Your task to perform on an android device: check storage Image 0: 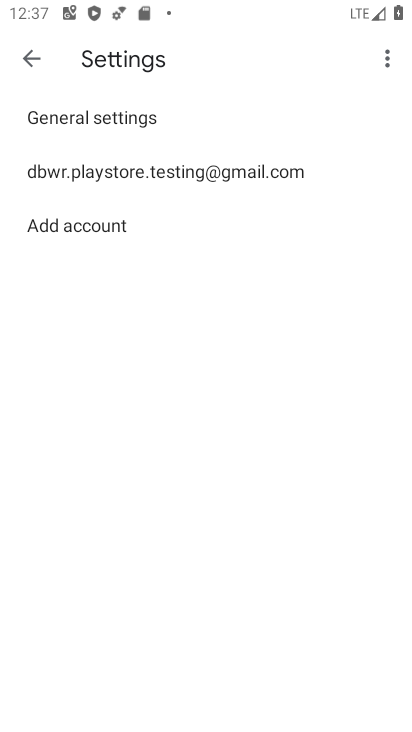
Step 0: press home button
Your task to perform on an android device: check storage Image 1: 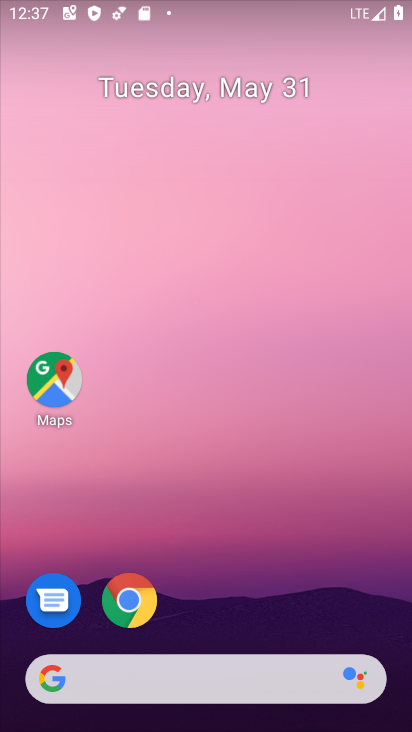
Step 1: drag from (223, 721) to (210, 86)
Your task to perform on an android device: check storage Image 2: 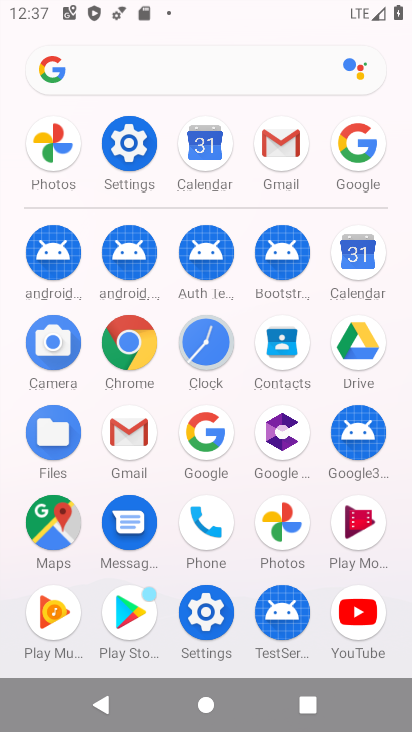
Step 2: click (121, 147)
Your task to perform on an android device: check storage Image 3: 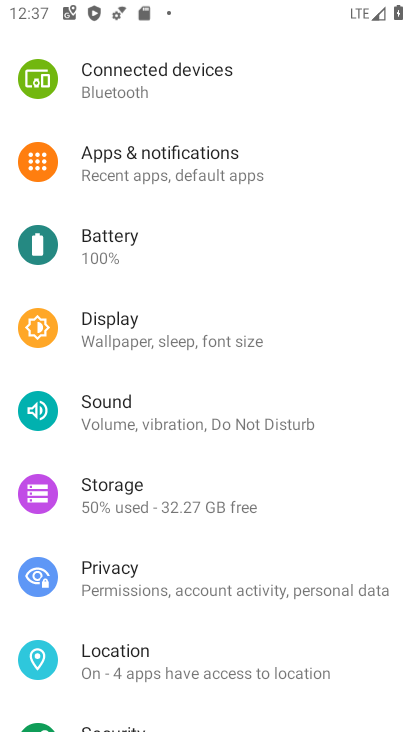
Step 3: click (119, 498)
Your task to perform on an android device: check storage Image 4: 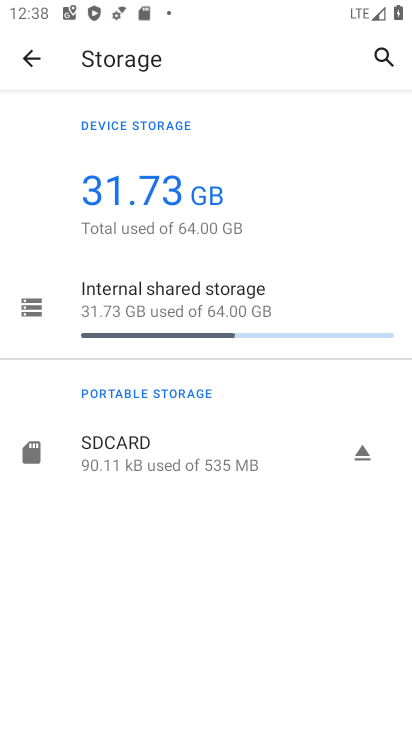
Step 4: task complete